Your task to perform on an android device: add a contact in the contacts app Image 0: 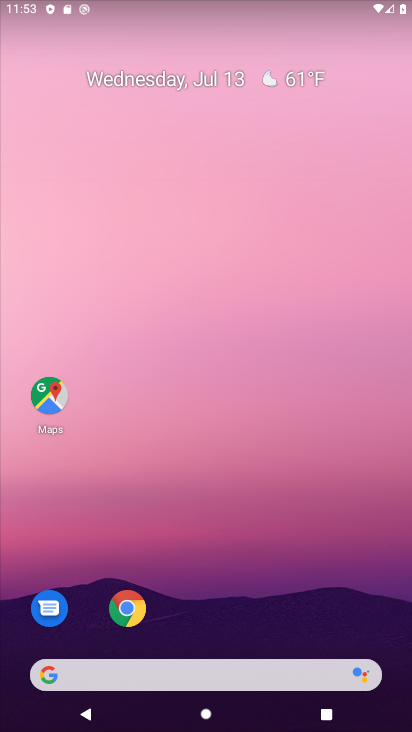
Step 0: drag from (208, 640) to (208, 136)
Your task to perform on an android device: add a contact in the contacts app Image 1: 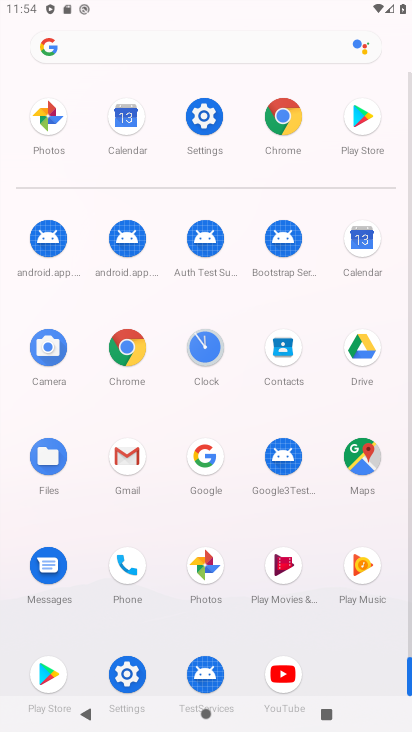
Step 1: click (294, 346)
Your task to perform on an android device: add a contact in the contacts app Image 2: 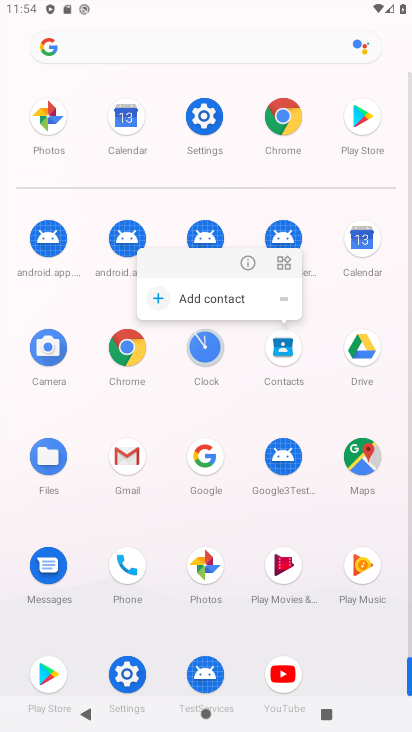
Step 2: click (242, 267)
Your task to perform on an android device: add a contact in the contacts app Image 3: 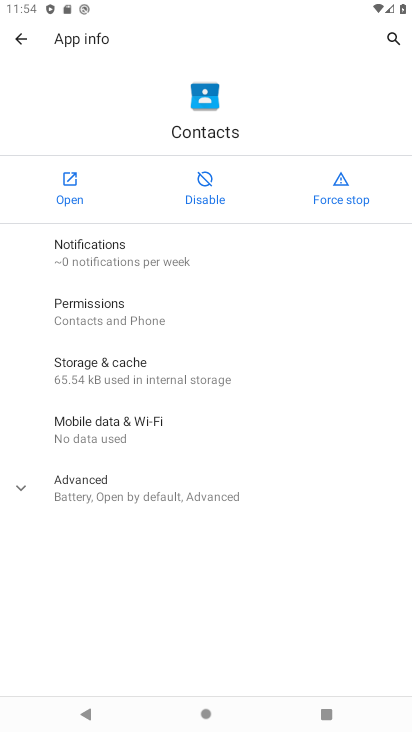
Step 3: click (71, 203)
Your task to perform on an android device: add a contact in the contacts app Image 4: 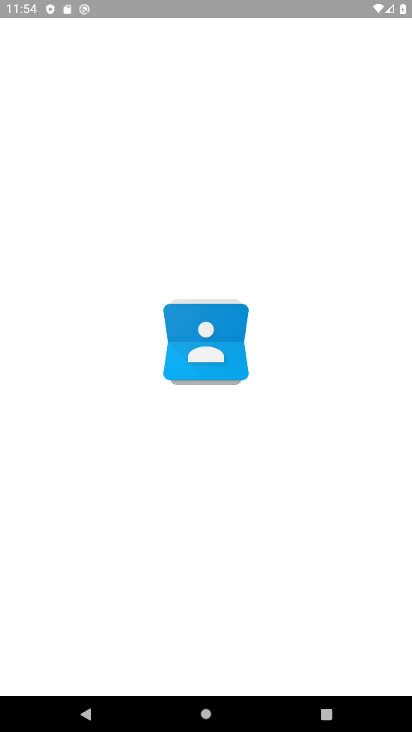
Step 4: drag from (304, 509) to (283, 259)
Your task to perform on an android device: add a contact in the contacts app Image 5: 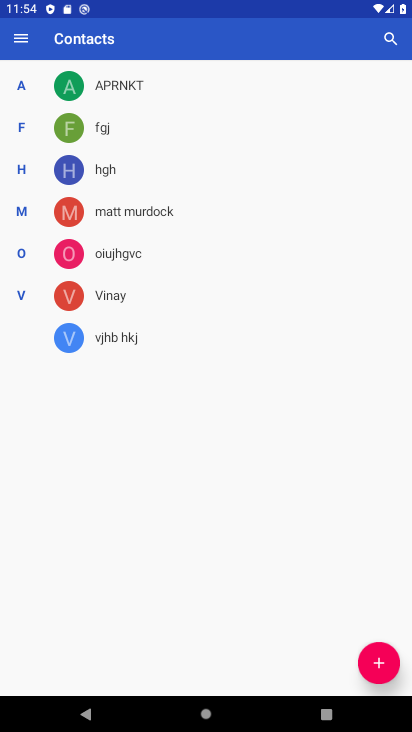
Step 5: drag from (285, 421) to (280, 239)
Your task to perform on an android device: add a contact in the contacts app Image 6: 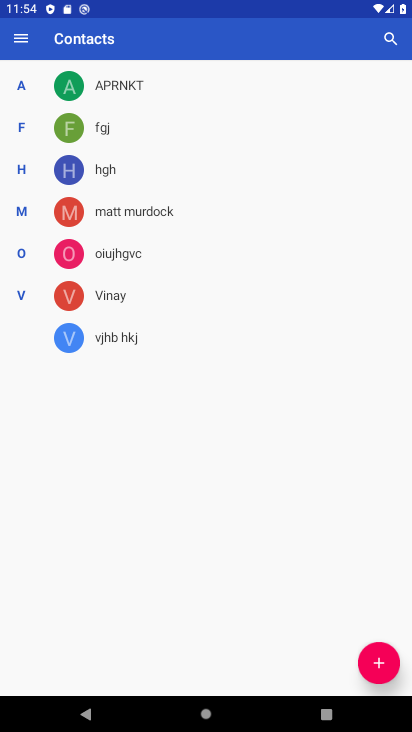
Step 6: drag from (201, 590) to (187, 300)
Your task to perform on an android device: add a contact in the contacts app Image 7: 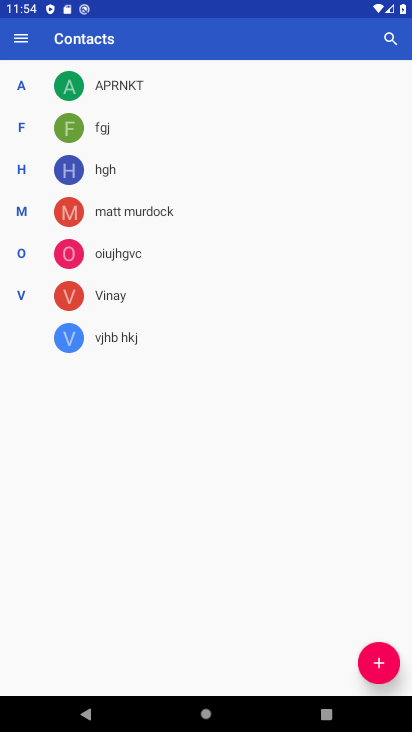
Step 7: click (212, 220)
Your task to perform on an android device: add a contact in the contacts app Image 8: 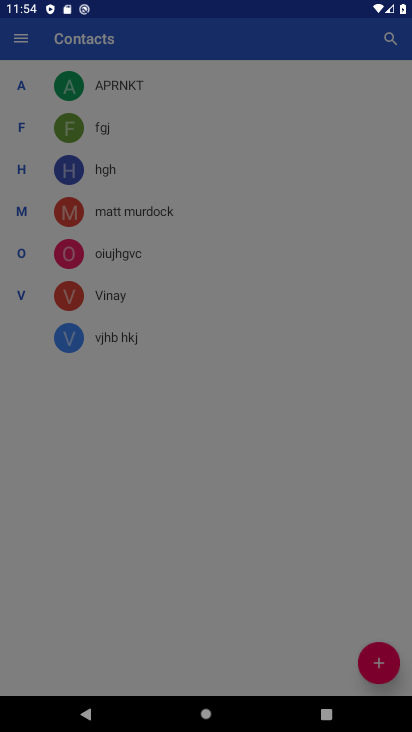
Step 8: click (394, 660)
Your task to perform on an android device: add a contact in the contacts app Image 9: 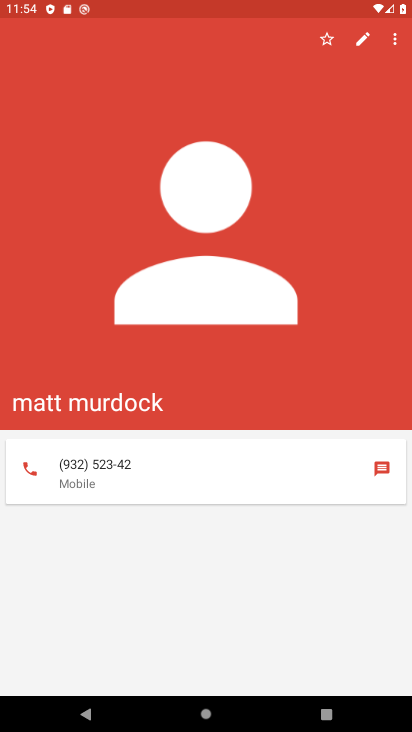
Step 9: press back button
Your task to perform on an android device: add a contact in the contacts app Image 10: 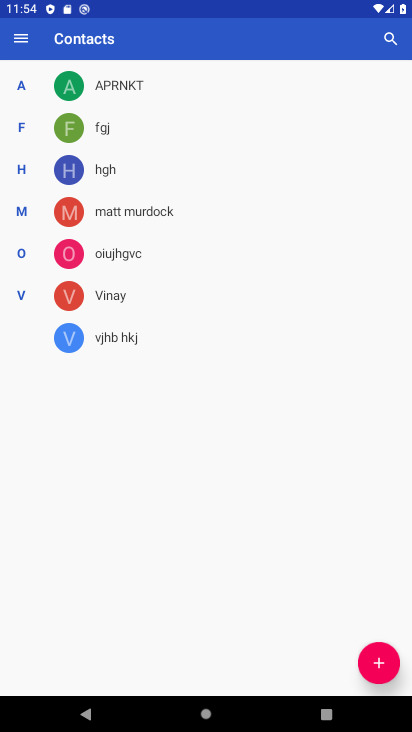
Step 10: click (375, 664)
Your task to perform on an android device: add a contact in the contacts app Image 11: 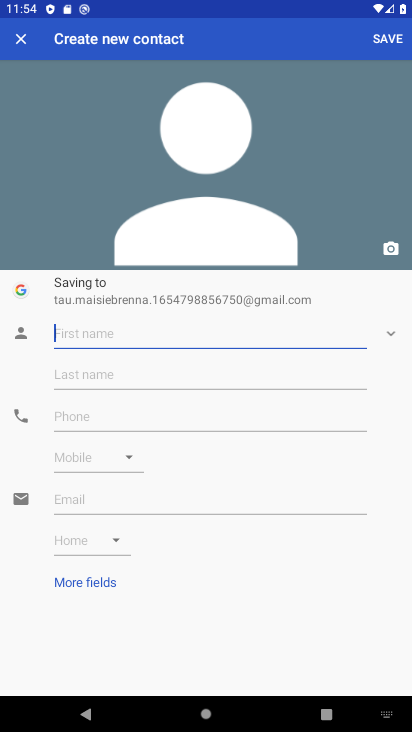
Step 11: click (104, 340)
Your task to perform on an android device: add a contact in the contacts app Image 12: 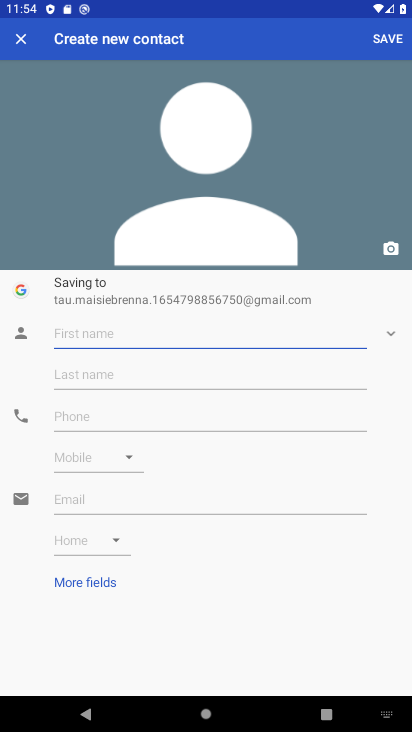
Step 12: click (95, 337)
Your task to perform on an android device: add a contact in the contacts app Image 13: 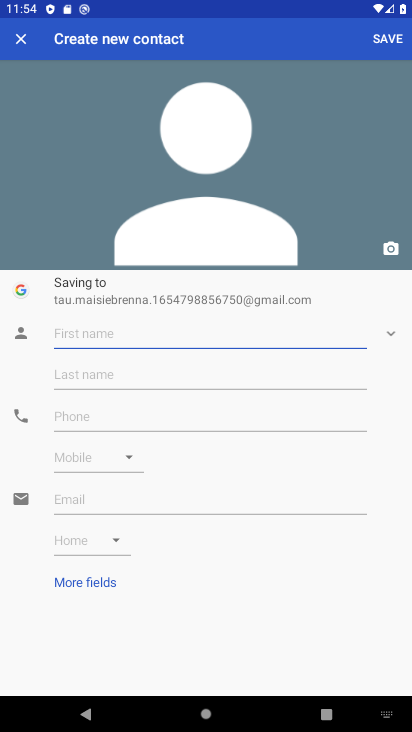
Step 13: type "contact"
Your task to perform on an android device: add a contact in the contacts app Image 14: 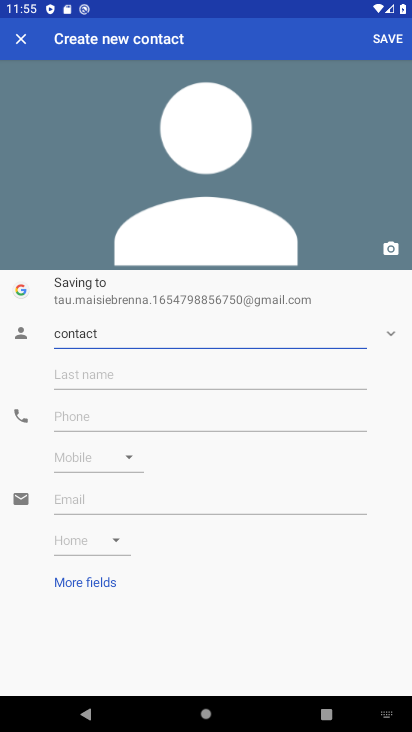
Step 14: click (376, 37)
Your task to perform on an android device: add a contact in the contacts app Image 15: 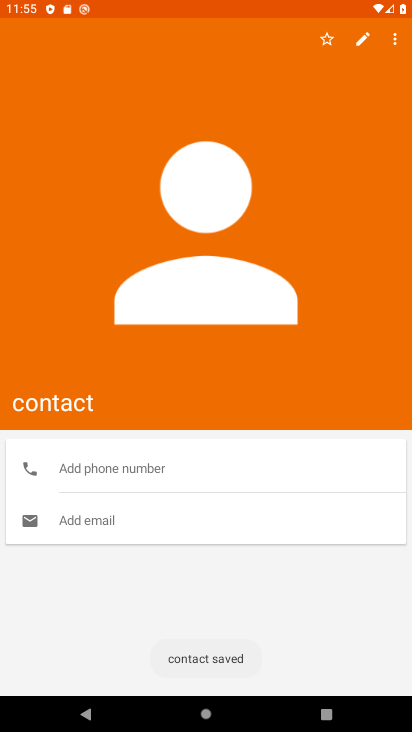
Step 15: task complete